Your task to perform on an android device: turn off javascript in the chrome app Image 0: 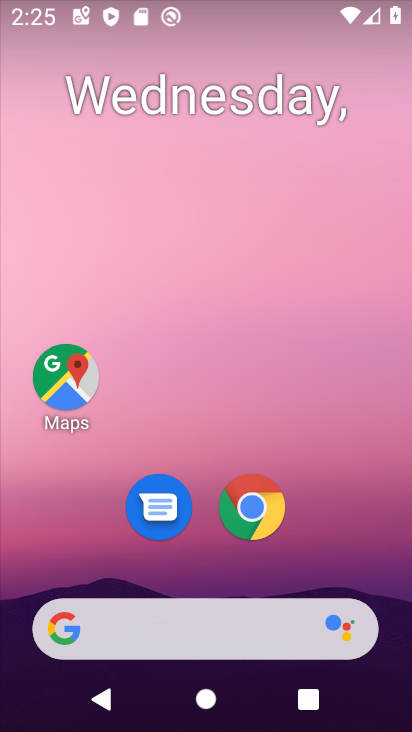
Step 0: click (252, 498)
Your task to perform on an android device: turn off javascript in the chrome app Image 1: 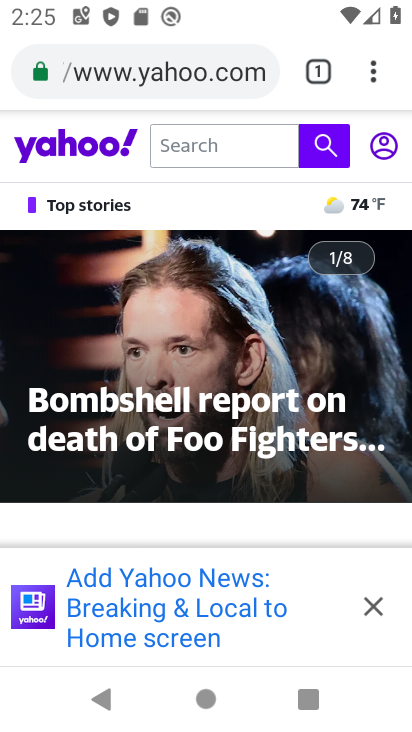
Step 1: click (362, 75)
Your task to perform on an android device: turn off javascript in the chrome app Image 2: 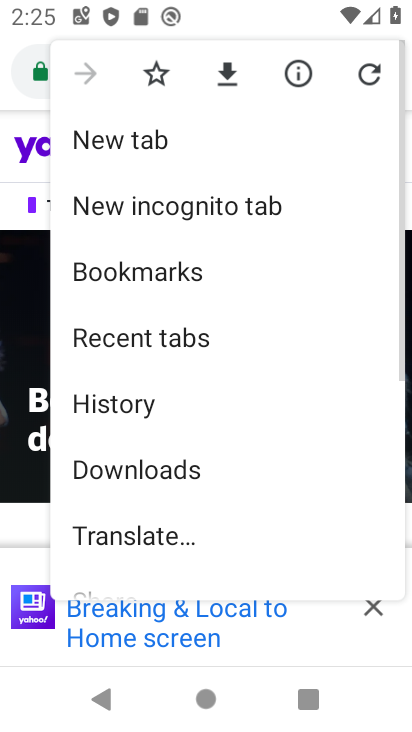
Step 2: drag from (236, 471) to (237, 141)
Your task to perform on an android device: turn off javascript in the chrome app Image 3: 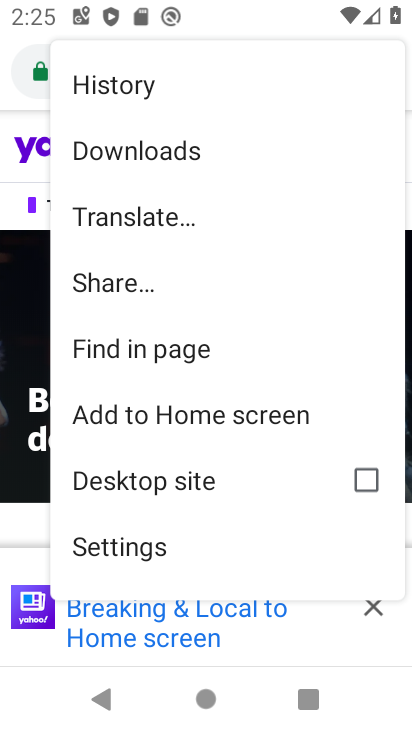
Step 3: click (184, 545)
Your task to perform on an android device: turn off javascript in the chrome app Image 4: 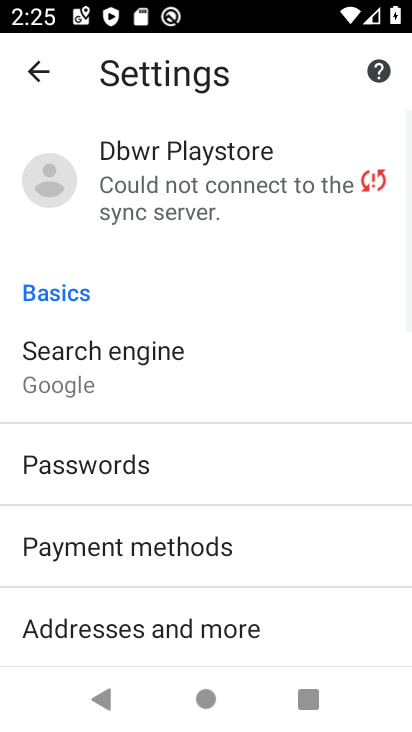
Step 4: drag from (289, 546) to (290, 218)
Your task to perform on an android device: turn off javascript in the chrome app Image 5: 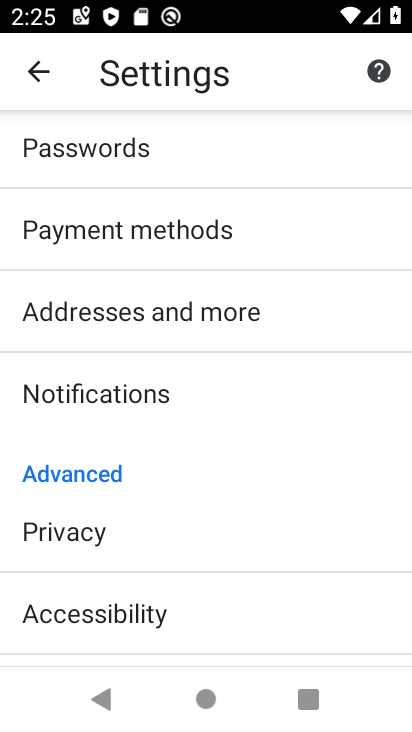
Step 5: drag from (196, 600) to (198, 213)
Your task to perform on an android device: turn off javascript in the chrome app Image 6: 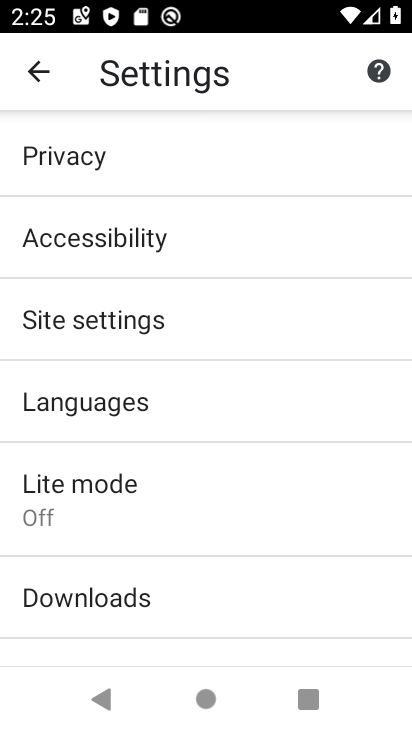
Step 6: drag from (177, 515) to (184, 245)
Your task to perform on an android device: turn off javascript in the chrome app Image 7: 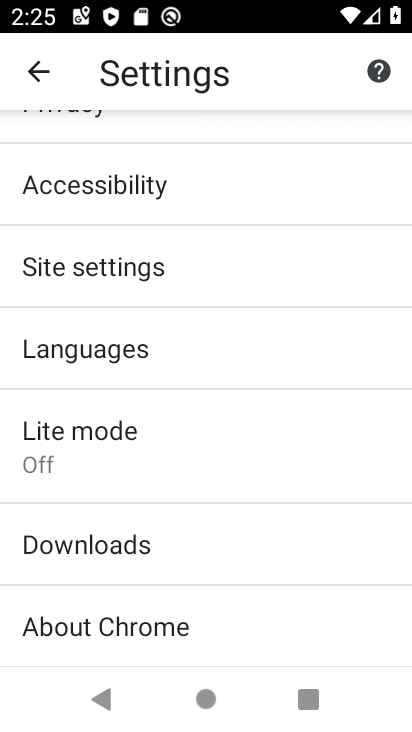
Step 7: drag from (217, 193) to (211, 373)
Your task to perform on an android device: turn off javascript in the chrome app Image 8: 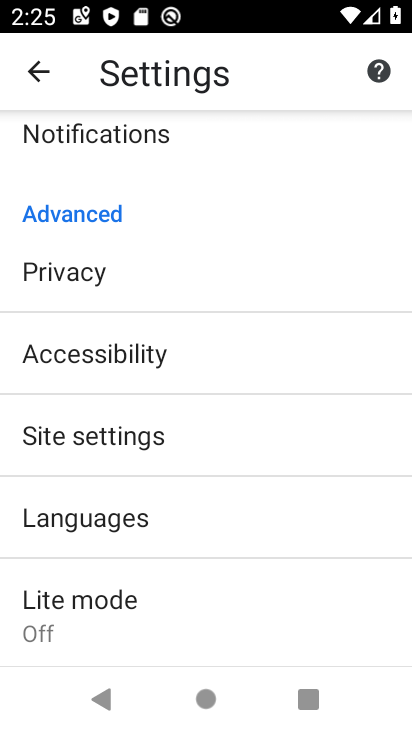
Step 8: click (199, 420)
Your task to perform on an android device: turn off javascript in the chrome app Image 9: 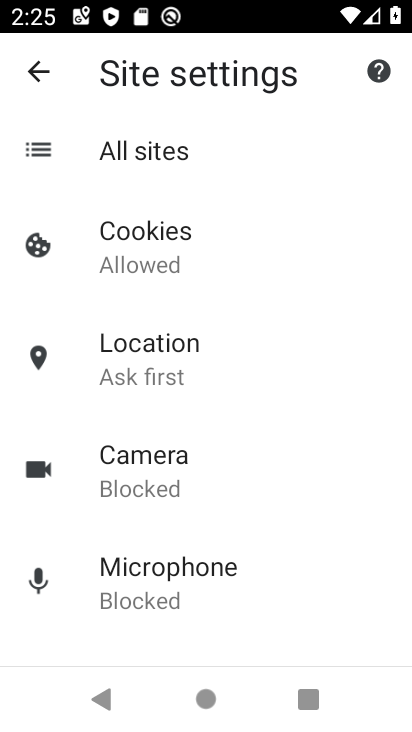
Step 9: drag from (242, 492) to (252, 165)
Your task to perform on an android device: turn off javascript in the chrome app Image 10: 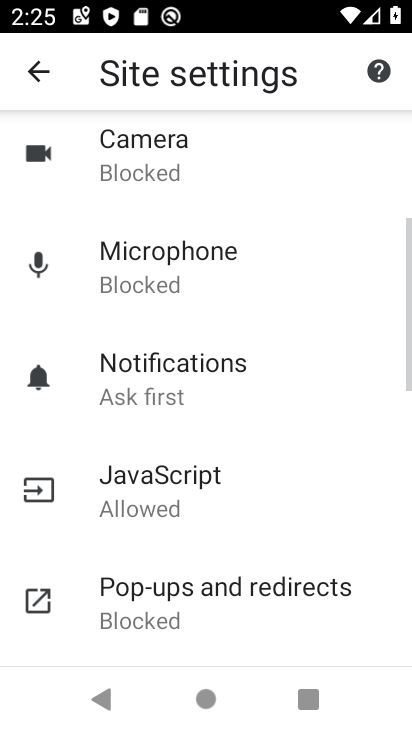
Step 10: click (237, 486)
Your task to perform on an android device: turn off javascript in the chrome app Image 11: 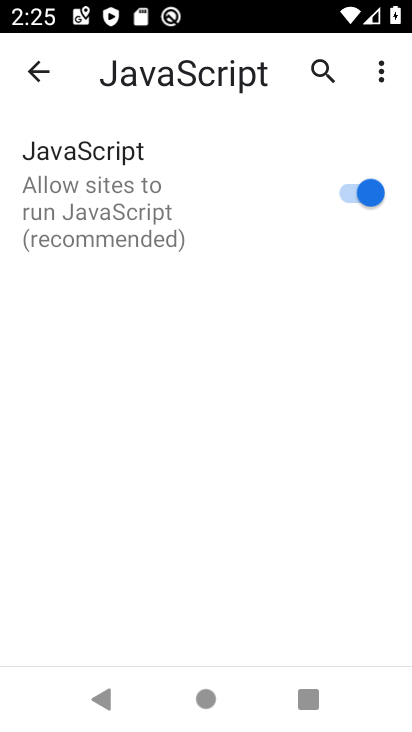
Step 11: click (358, 187)
Your task to perform on an android device: turn off javascript in the chrome app Image 12: 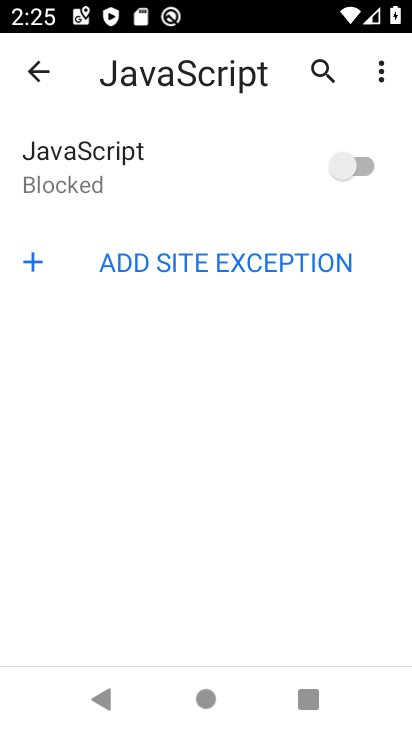
Step 12: task complete